Your task to perform on an android device: change the clock display to show seconds Image 0: 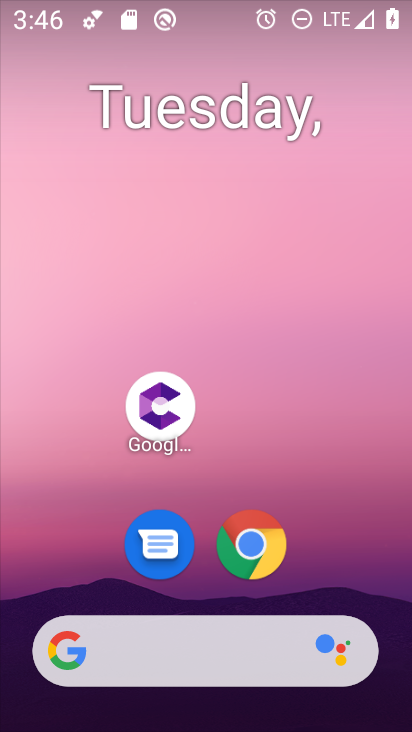
Step 0: drag from (350, 579) to (394, 81)
Your task to perform on an android device: change the clock display to show seconds Image 1: 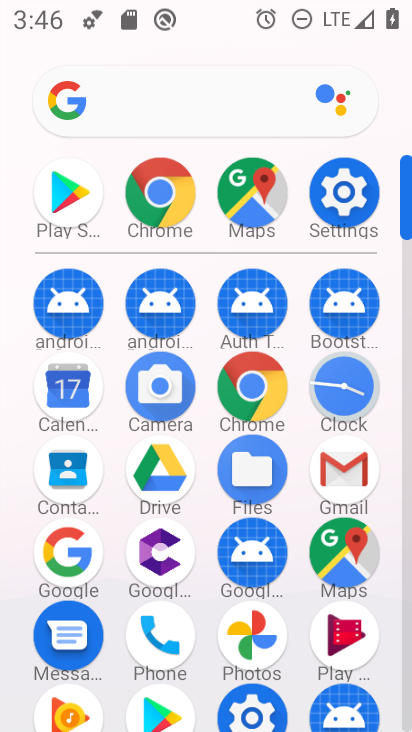
Step 1: click (340, 391)
Your task to perform on an android device: change the clock display to show seconds Image 2: 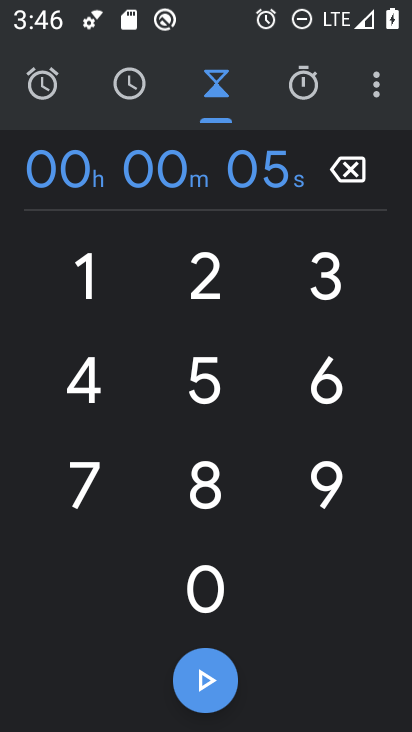
Step 2: click (378, 81)
Your task to perform on an android device: change the clock display to show seconds Image 3: 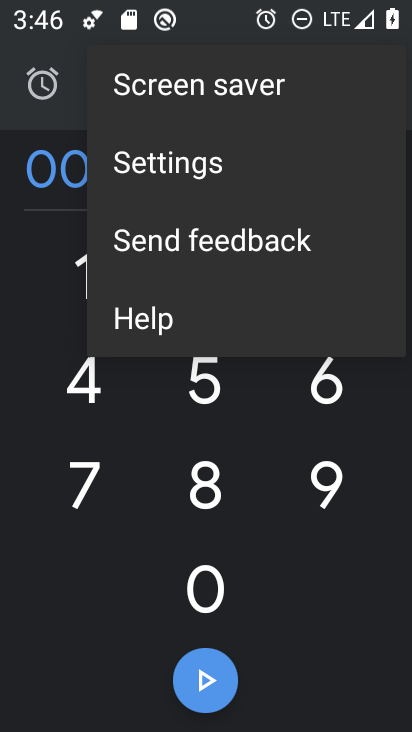
Step 3: click (200, 175)
Your task to perform on an android device: change the clock display to show seconds Image 4: 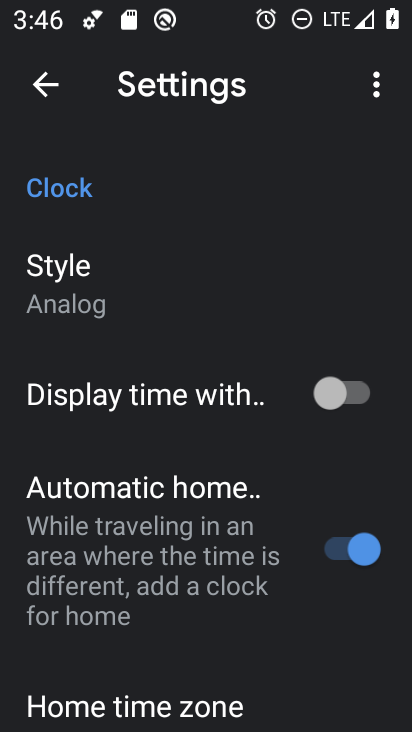
Step 4: drag from (291, 647) to (262, 377)
Your task to perform on an android device: change the clock display to show seconds Image 5: 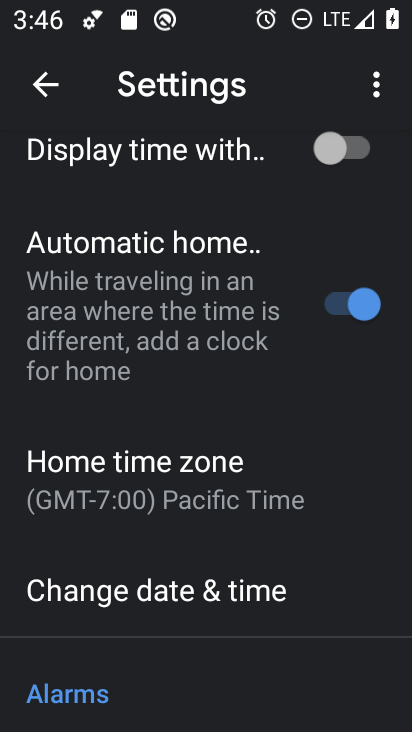
Step 5: drag from (321, 625) to (318, 458)
Your task to perform on an android device: change the clock display to show seconds Image 6: 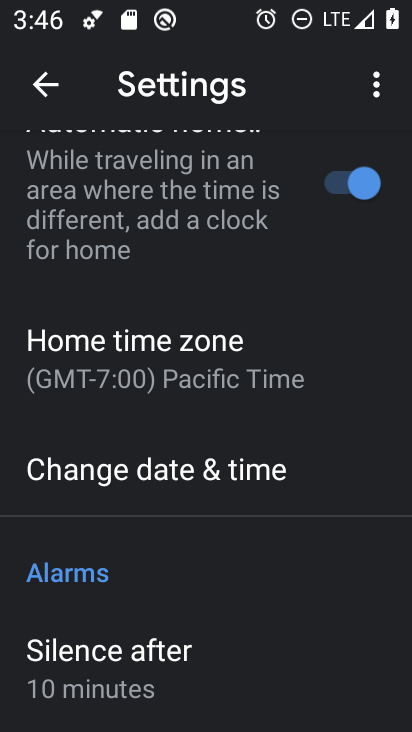
Step 6: drag from (344, 641) to (355, 491)
Your task to perform on an android device: change the clock display to show seconds Image 7: 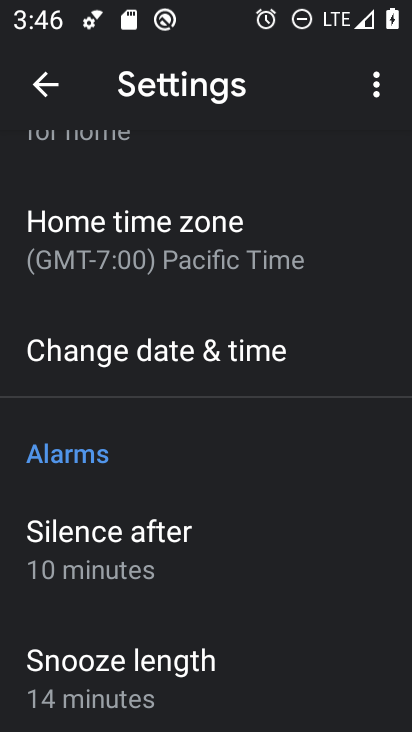
Step 7: drag from (338, 673) to (323, 466)
Your task to perform on an android device: change the clock display to show seconds Image 8: 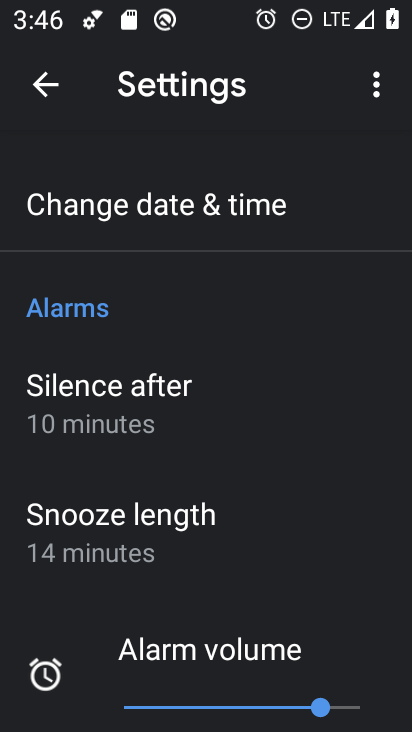
Step 8: drag from (337, 606) to (340, 484)
Your task to perform on an android device: change the clock display to show seconds Image 9: 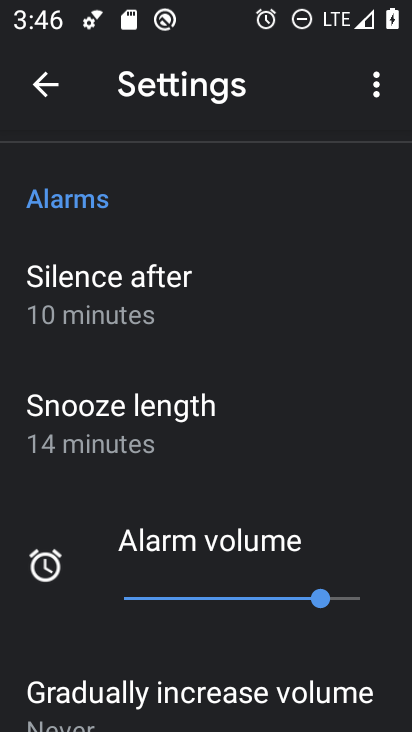
Step 9: drag from (349, 649) to (350, 522)
Your task to perform on an android device: change the clock display to show seconds Image 10: 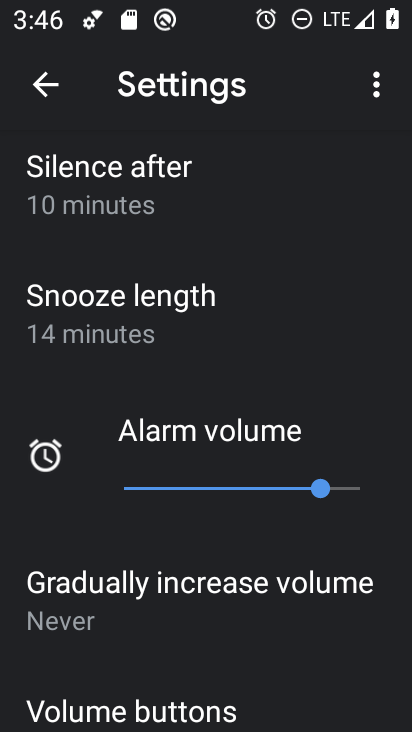
Step 10: drag from (342, 699) to (342, 575)
Your task to perform on an android device: change the clock display to show seconds Image 11: 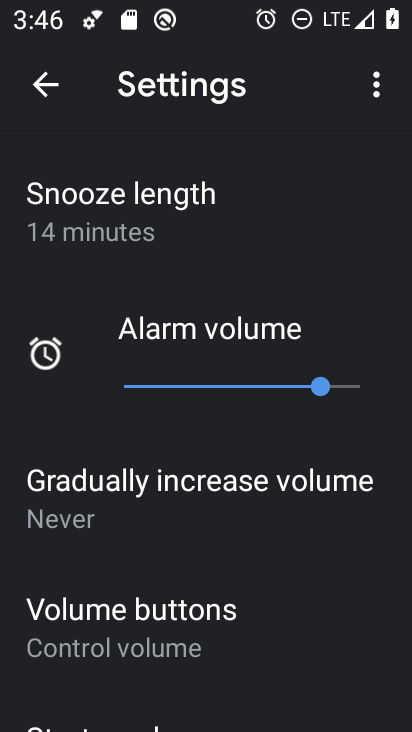
Step 11: drag from (353, 574) to (367, 445)
Your task to perform on an android device: change the clock display to show seconds Image 12: 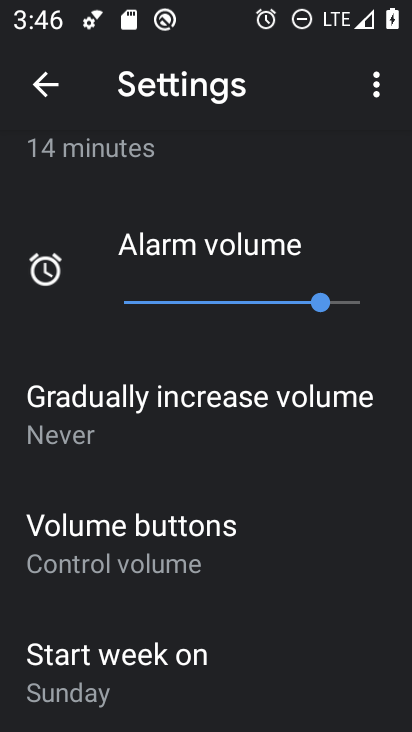
Step 12: drag from (354, 628) to (341, 491)
Your task to perform on an android device: change the clock display to show seconds Image 13: 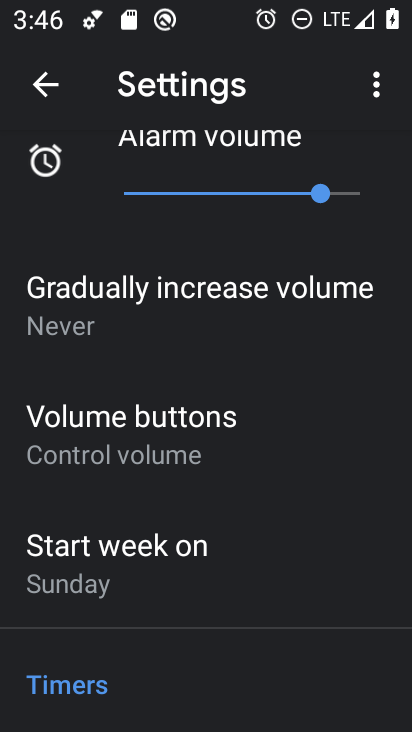
Step 13: drag from (333, 672) to (346, 521)
Your task to perform on an android device: change the clock display to show seconds Image 14: 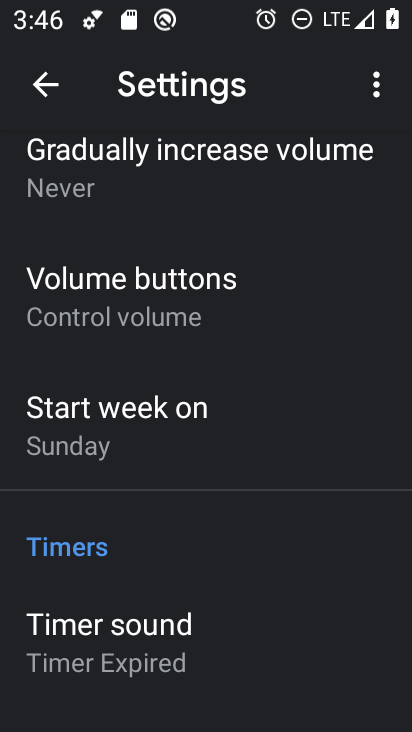
Step 14: drag from (357, 268) to (347, 441)
Your task to perform on an android device: change the clock display to show seconds Image 15: 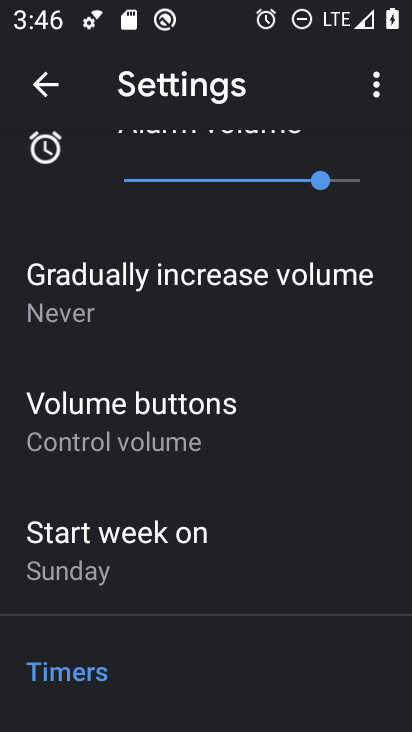
Step 15: drag from (389, 219) to (335, 403)
Your task to perform on an android device: change the clock display to show seconds Image 16: 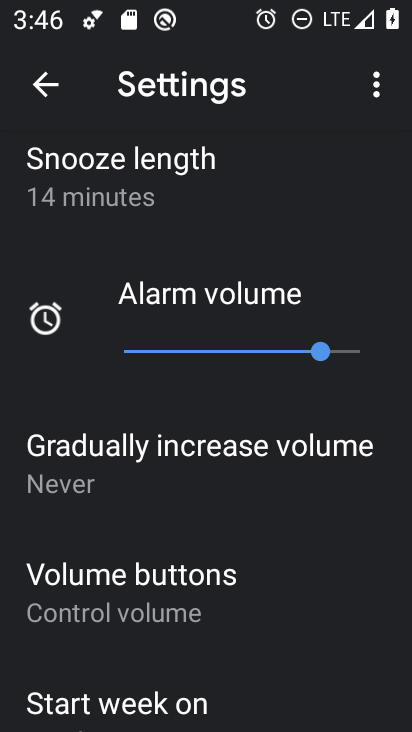
Step 16: drag from (363, 218) to (341, 391)
Your task to perform on an android device: change the clock display to show seconds Image 17: 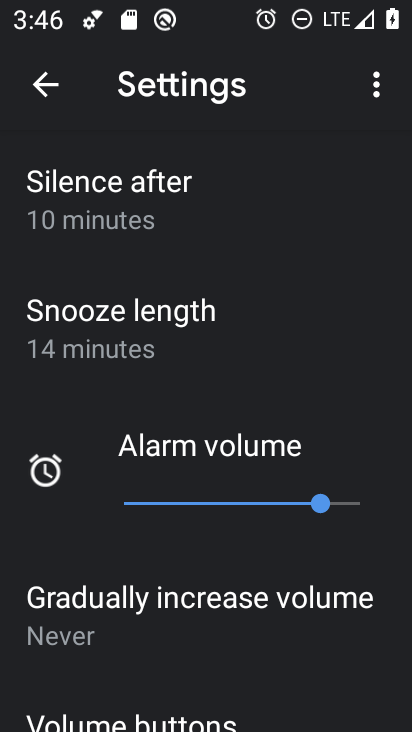
Step 17: drag from (330, 209) to (320, 352)
Your task to perform on an android device: change the clock display to show seconds Image 18: 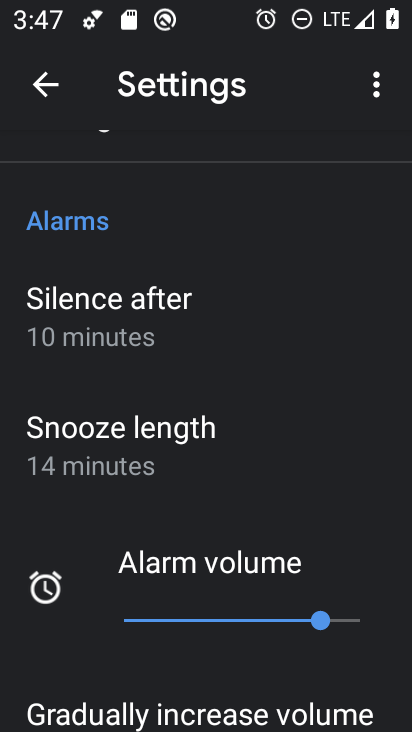
Step 18: drag from (313, 205) to (315, 339)
Your task to perform on an android device: change the clock display to show seconds Image 19: 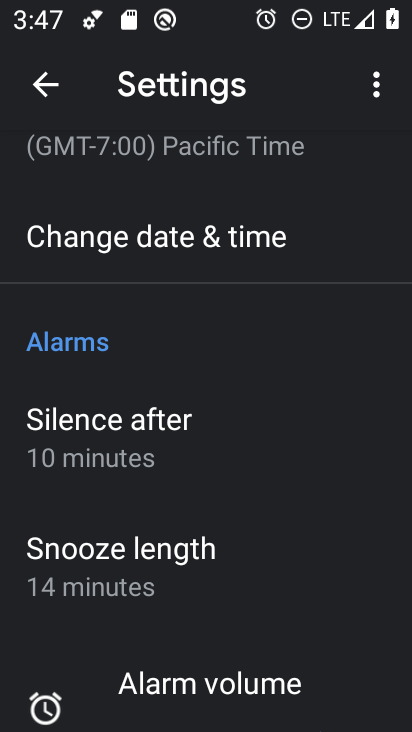
Step 19: drag from (321, 195) to (312, 346)
Your task to perform on an android device: change the clock display to show seconds Image 20: 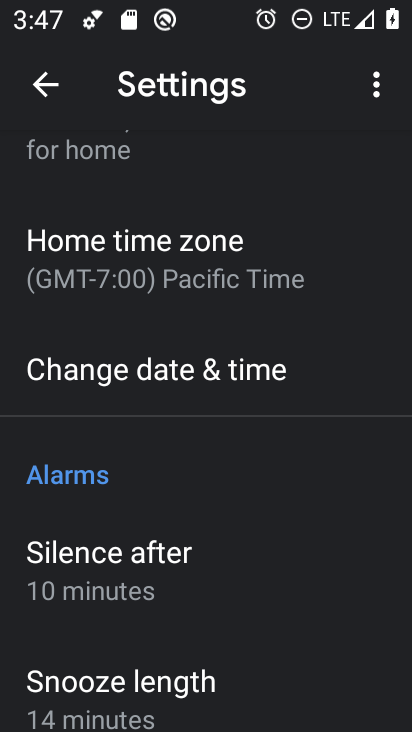
Step 20: drag from (331, 163) to (323, 342)
Your task to perform on an android device: change the clock display to show seconds Image 21: 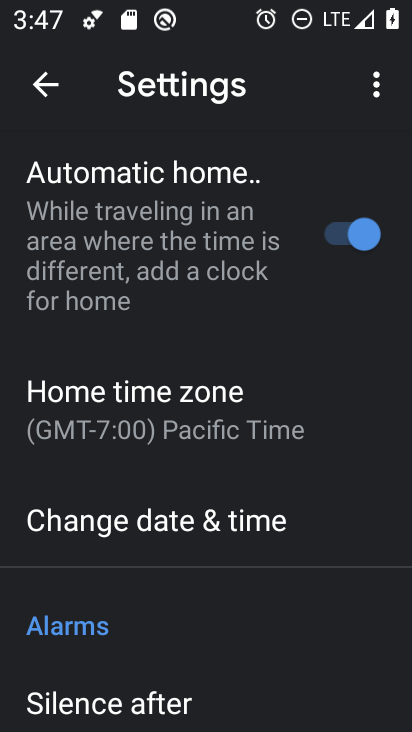
Step 21: drag from (302, 165) to (280, 353)
Your task to perform on an android device: change the clock display to show seconds Image 22: 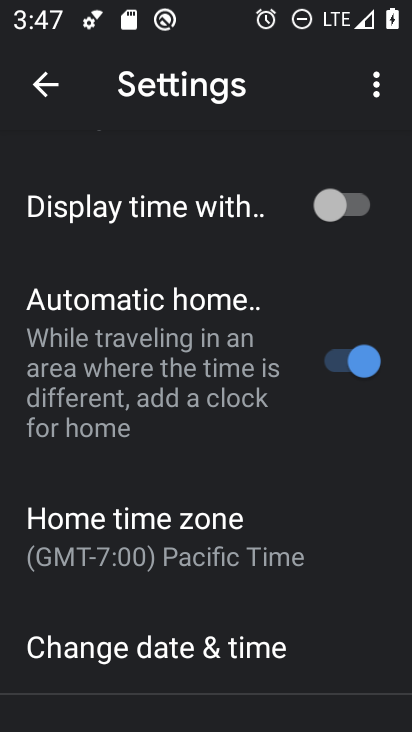
Step 22: drag from (275, 150) to (247, 325)
Your task to perform on an android device: change the clock display to show seconds Image 23: 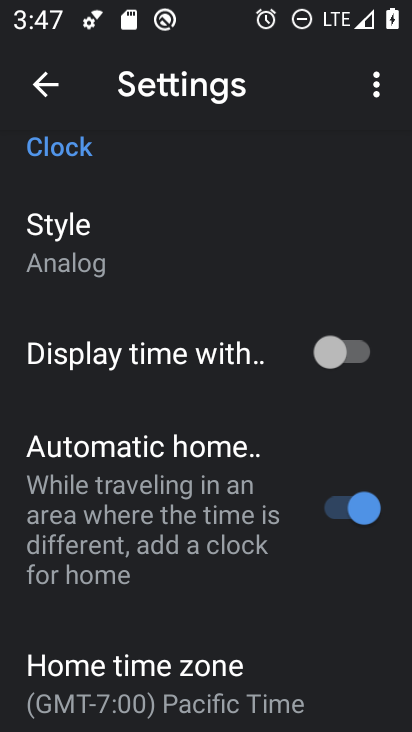
Step 23: click (327, 359)
Your task to perform on an android device: change the clock display to show seconds Image 24: 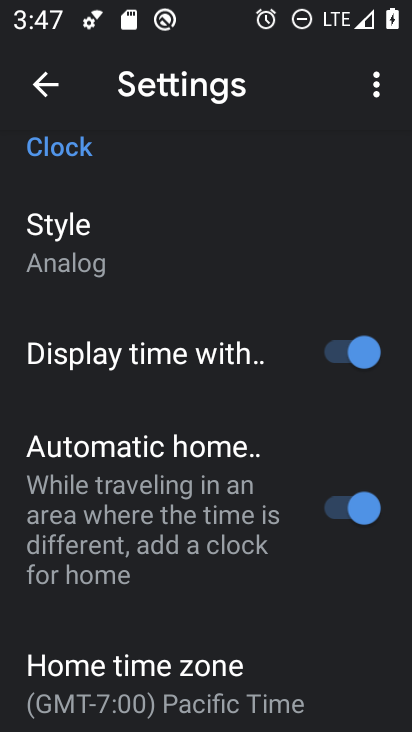
Step 24: task complete